Your task to perform on an android device: open the mobile data screen to see how much data has been used Image 0: 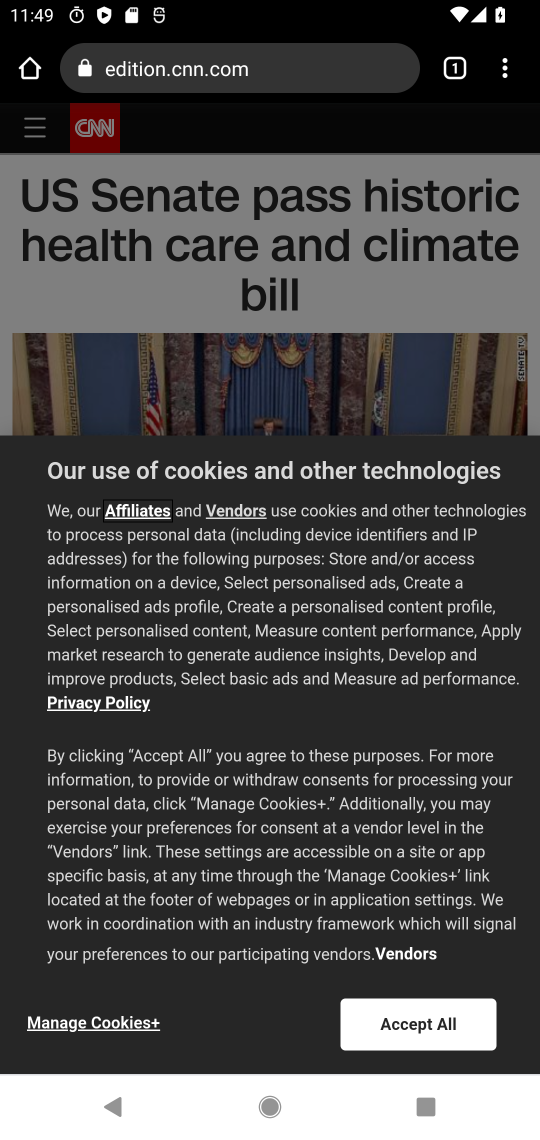
Step 0: press home button
Your task to perform on an android device: open the mobile data screen to see how much data has been used Image 1: 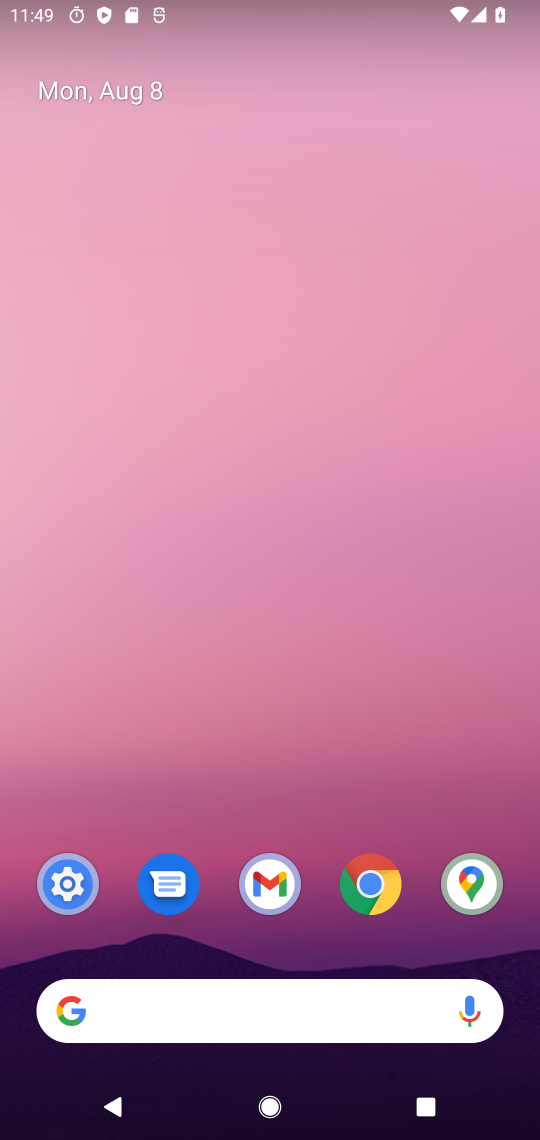
Step 1: click (62, 893)
Your task to perform on an android device: open the mobile data screen to see how much data has been used Image 2: 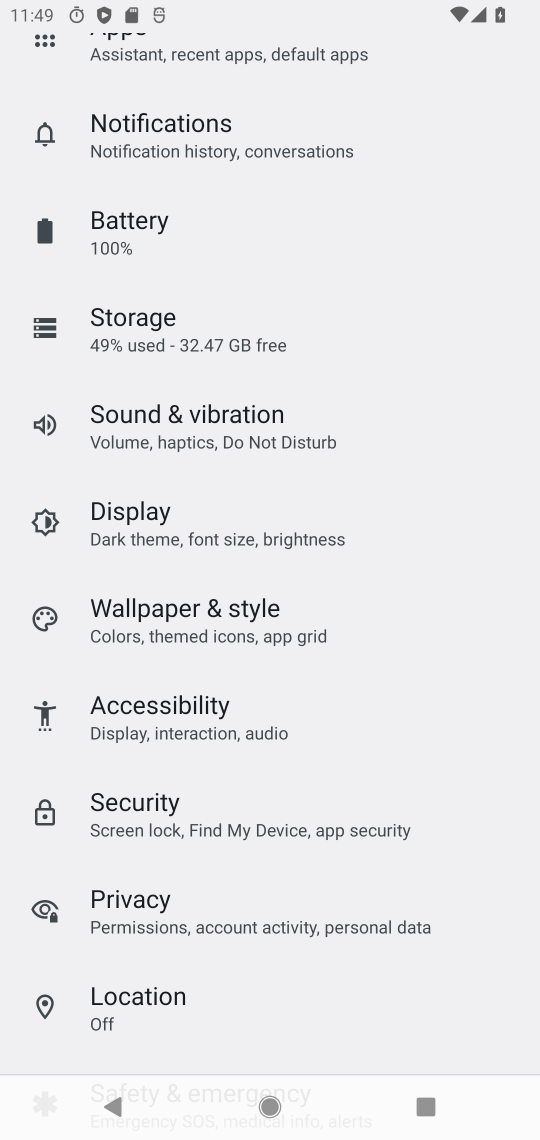
Step 2: drag from (247, 226) to (204, 670)
Your task to perform on an android device: open the mobile data screen to see how much data has been used Image 3: 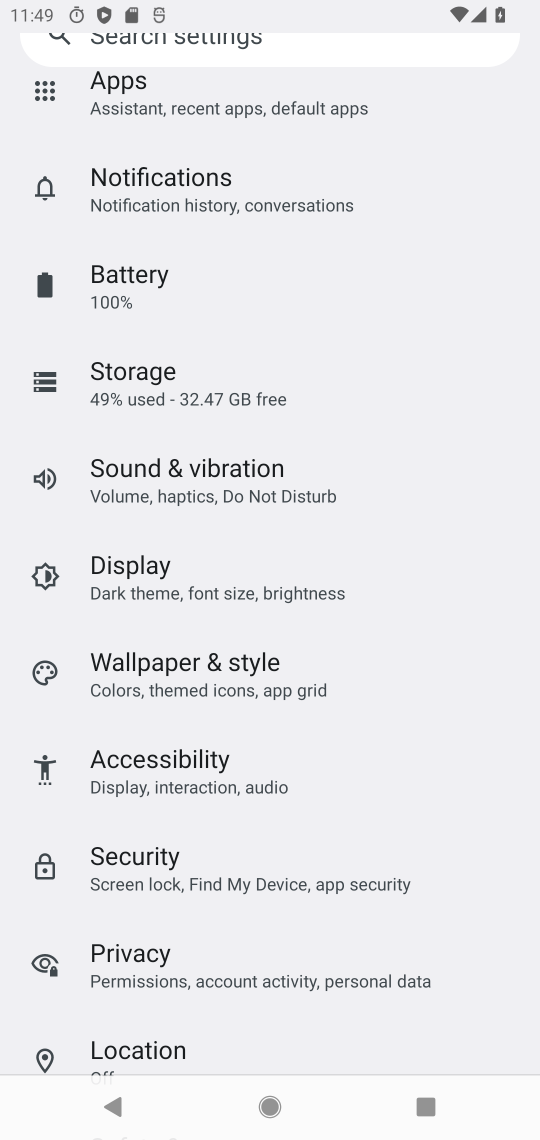
Step 3: drag from (273, 232) to (256, 693)
Your task to perform on an android device: open the mobile data screen to see how much data has been used Image 4: 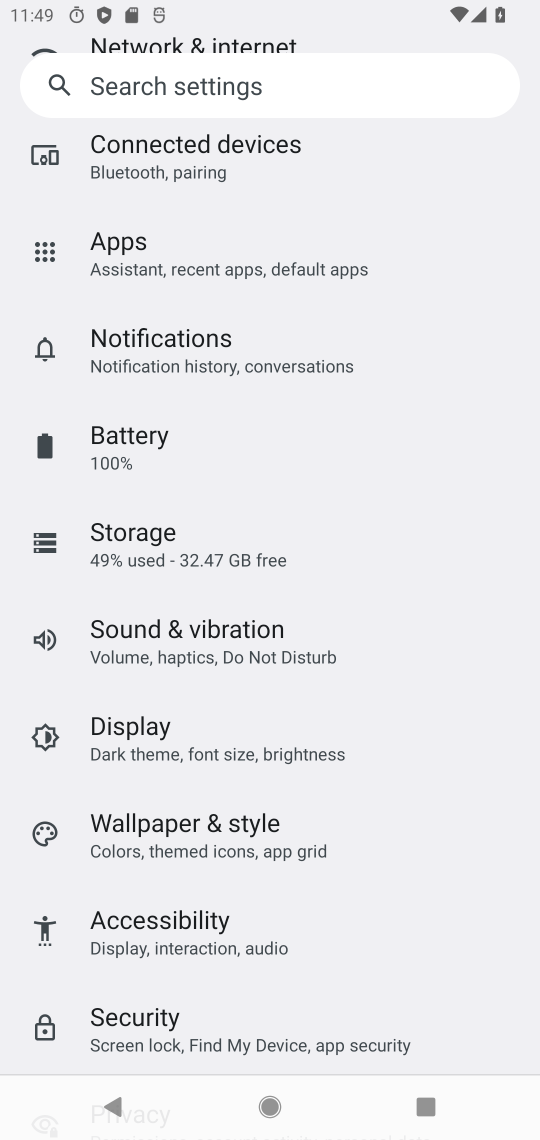
Step 4: drag from (246, 296) to (126, 859)
Your task to perform on an android device: open the mobile data screen to see how much data has been used Image 5: 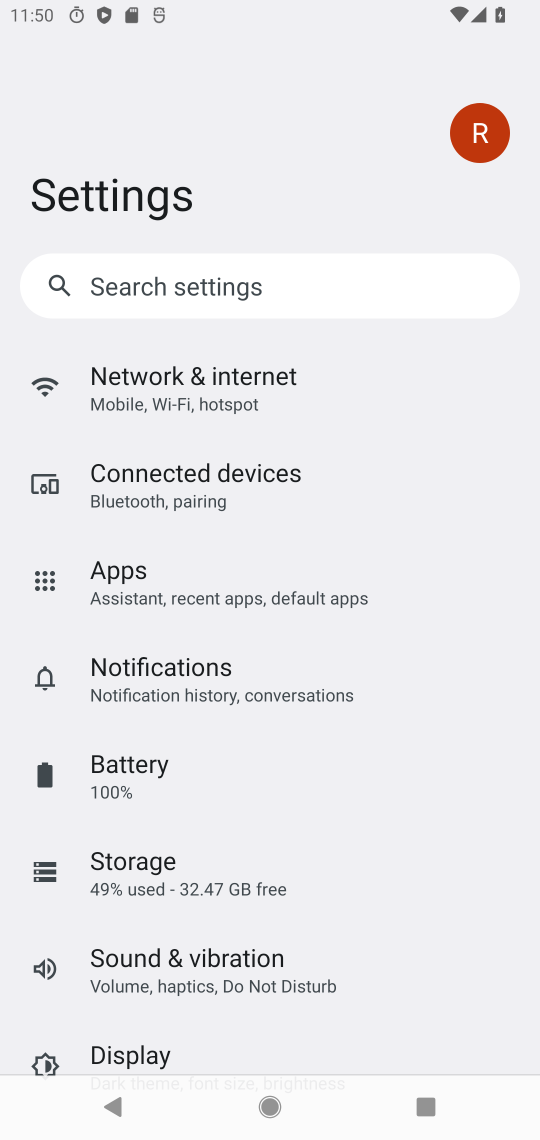
Step 5: click (179, 390)
Your task to perform on an android device: open the mobile data screen to see how much data has been used Image 6: 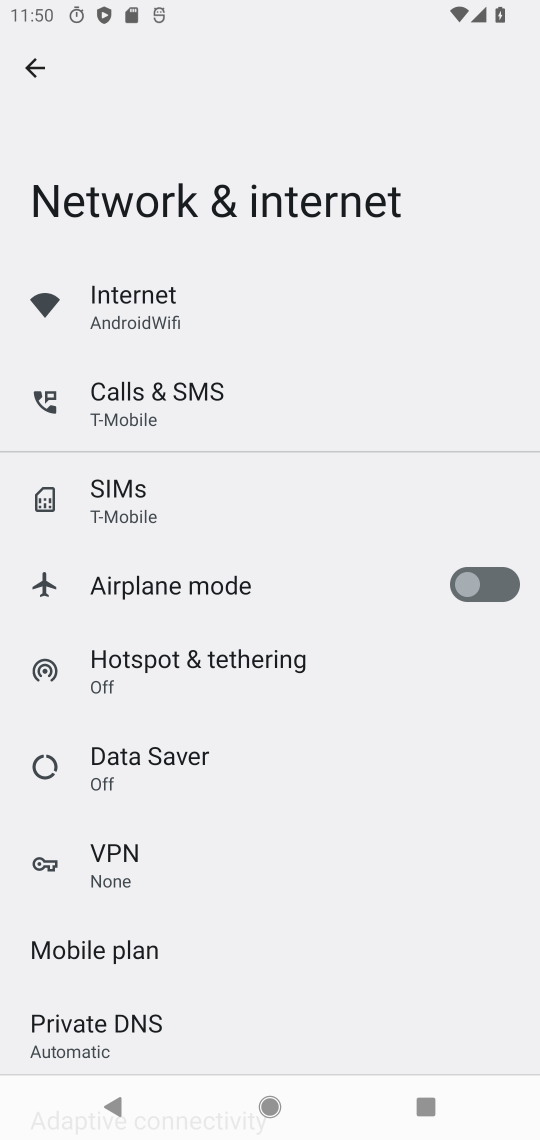
Step 6: click (127, 298)
Your task to perform on an android device: open the mobile data screen to see how much data has been used Image 7: 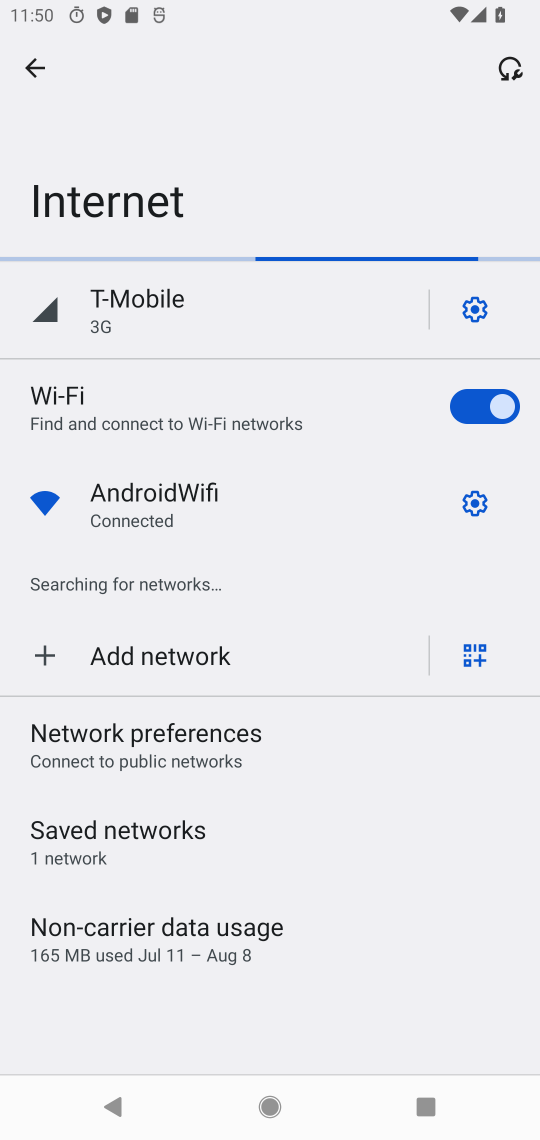
Step 7: click (135, 922)
Your task to perform on an android device: open the mobile data screen to see how much data has been used Image 8: 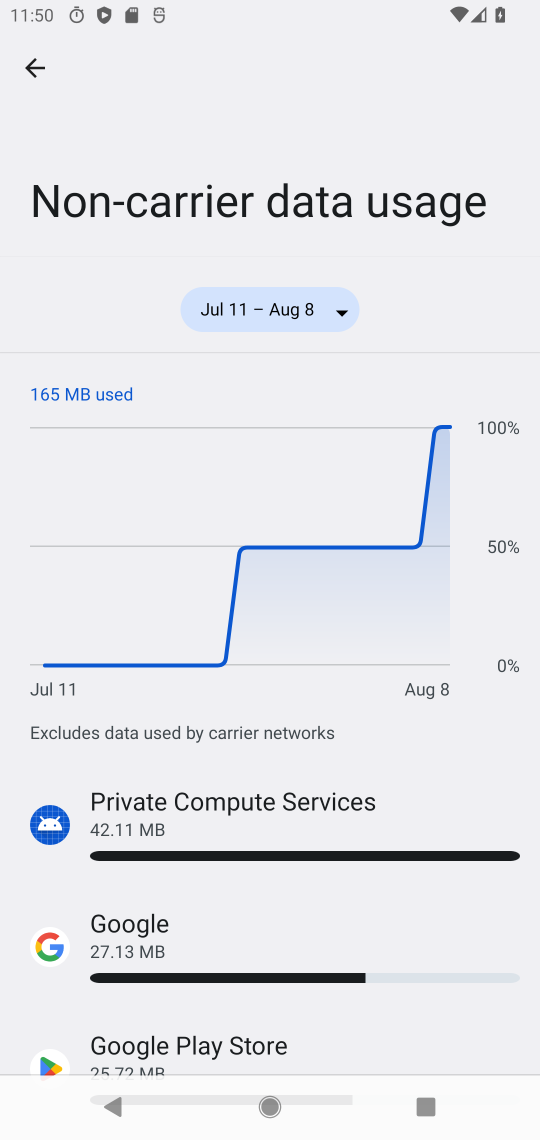
Step 8: task complete